Your task to perform on an android device: clear all cookies in the chrome app Image 0: 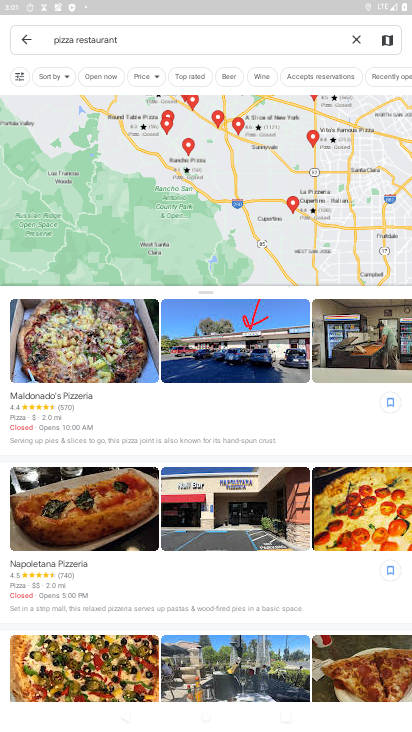
Step 0: press home button
Your task to perform on an android device: clear all cookies in the chrome app Image 1: 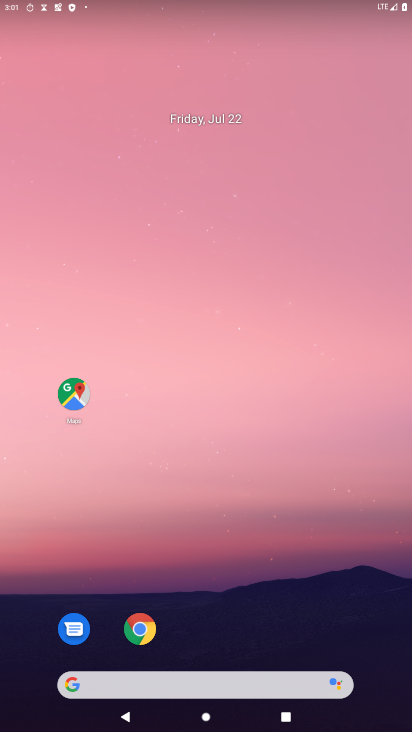
Step 1: drag from (208, 698) to (246, 215)
Your task to perform on an android device: clear all cookies in the chrome app Image 2: 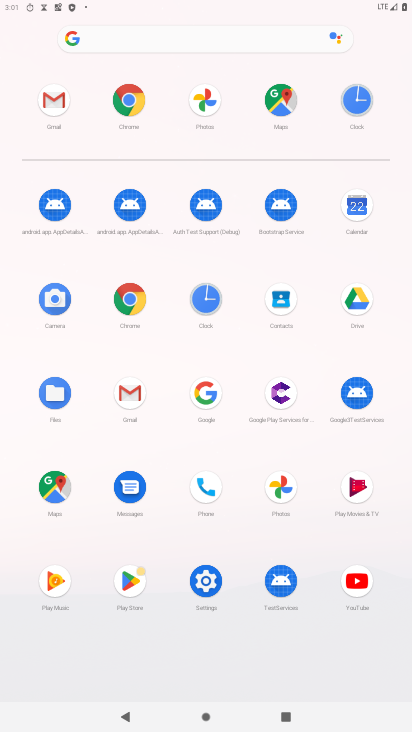
Step 2: click (128, 295)
Your task to perform on an android device: clear all cookies in the chrome app Image 3: 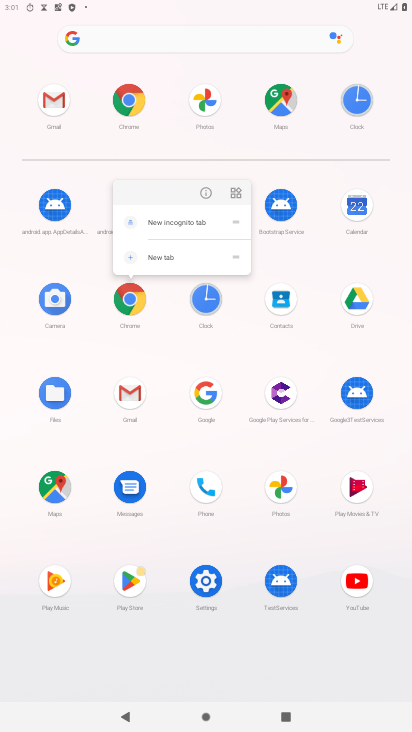
Step 3: click (127, 302)
Your task to perform on an android device: clear all cookies in the chrome app Image 4: 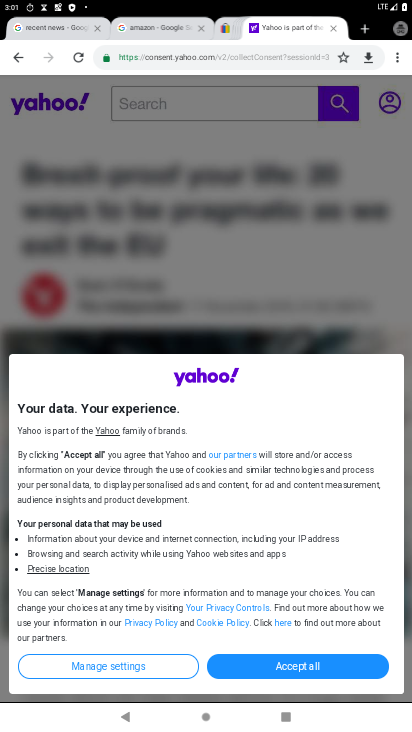
Step 4: drag from (394, 50) to (289, 368)
Your task to perform on an android device: clear all cookies in the chrome app Image 5: 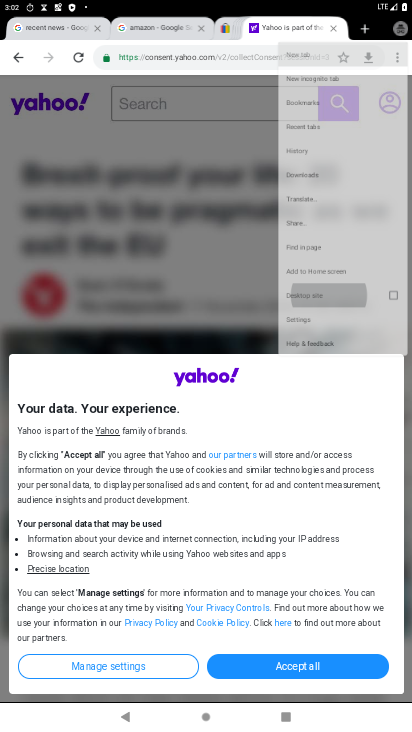
Step 5: click (279, 379)
Your task to perform on an android device: clear all cookies in the chrome app Image 6: 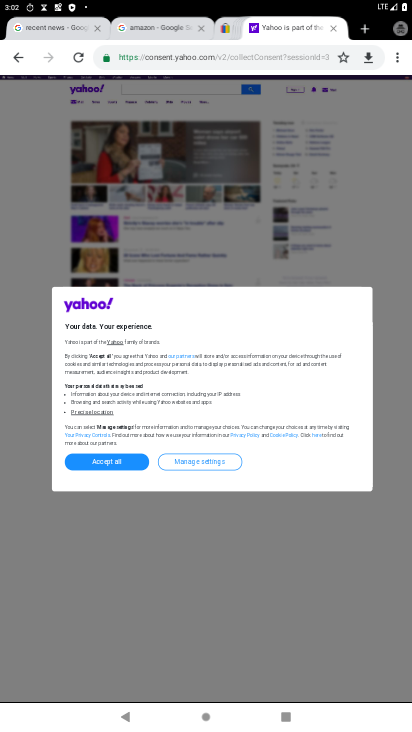
Step 6: press back button
Your task to perform on an android device: clear all cookies in the chrome app Image 7: 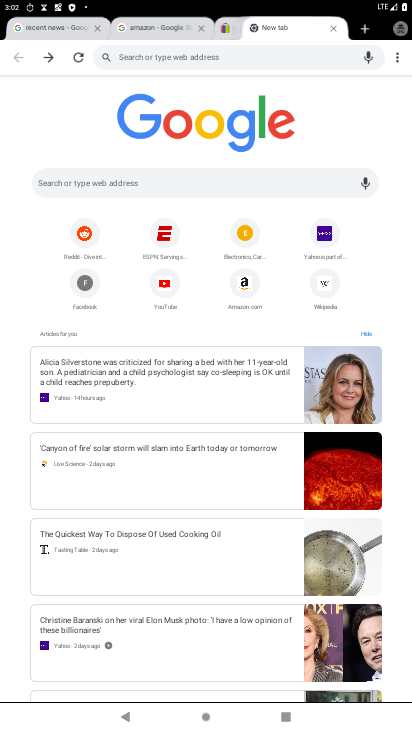
Step 7: click (397, 49)
Your task to perform on an android device: clear all cookies in the chrome app Image 8: 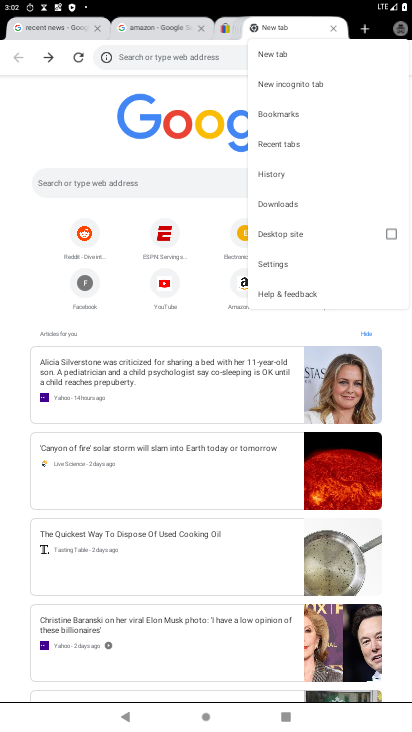
Step 8: click (292, 261)
Your task to perform on an android device: clear all cookies in the chrome app Image 9: 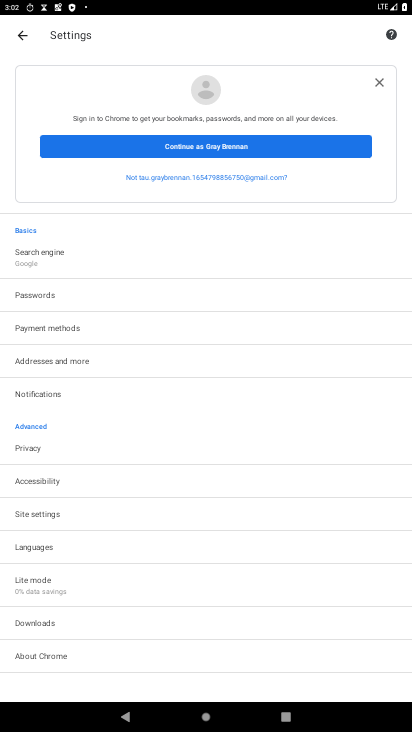
Step 9: click (57, 516)
Your task to perform on an android device: clear all cookies in the chrome app Image 10: 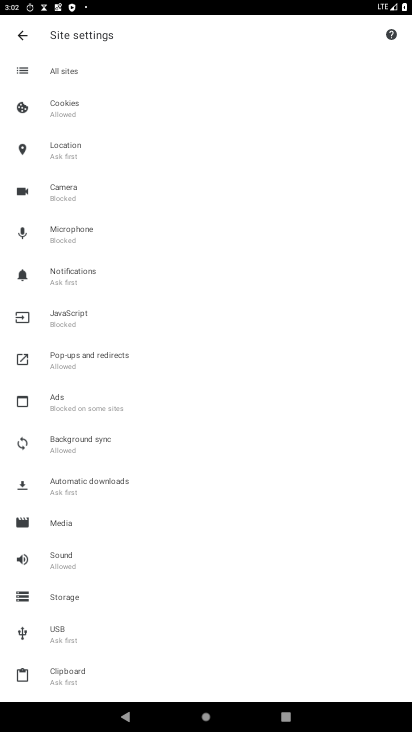
Step 10: click (78, 114)
Your task to perform on an android device: clear all cookies in the chrome app Image 11: 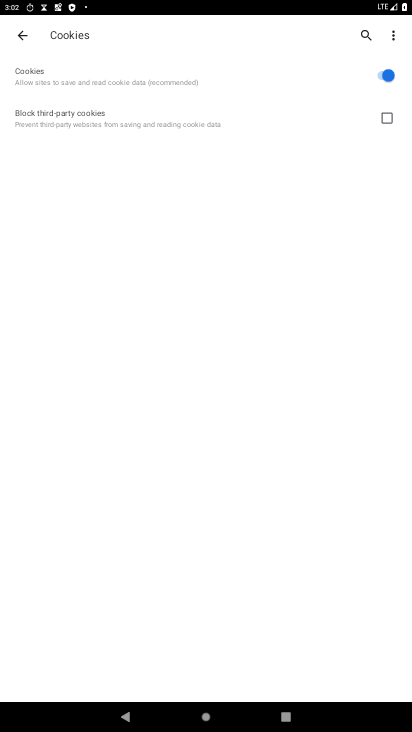
Step 11: press back button
Your task to perform on an android device: clear all cookies in the chrome app Image 12: 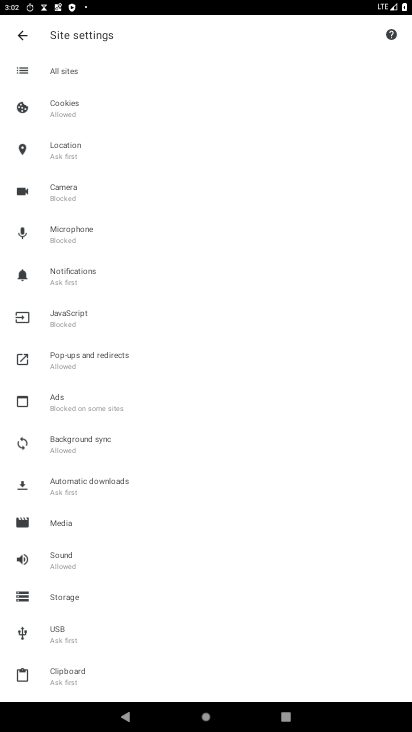
Step 12: press back button
Your task to perform on an android device: clear all cookies in the chrome app Image 13: 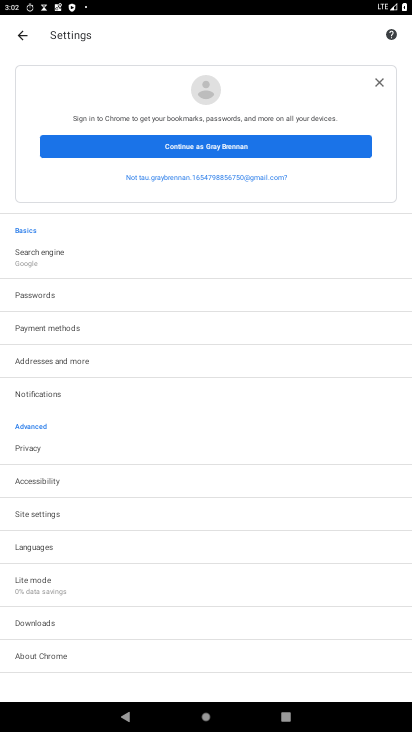
Step 13: click (58, 449)
Your task to perform on an android device: clear all cookies in the chrome app Image 14: 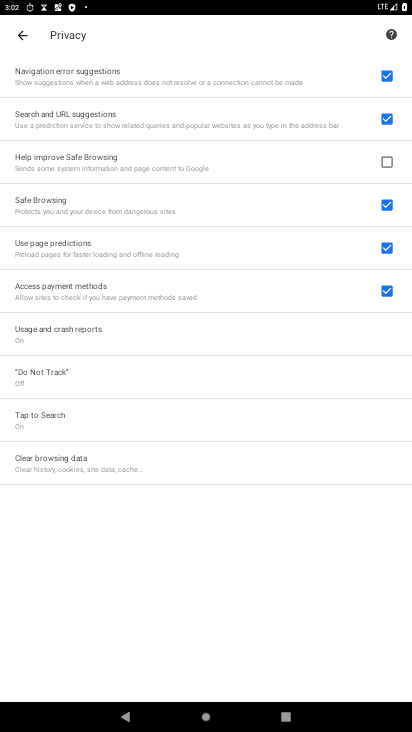
Step 14: click (107, 470)
Your task to perform on an android device: clear all cookies in the chrome app Image 15: 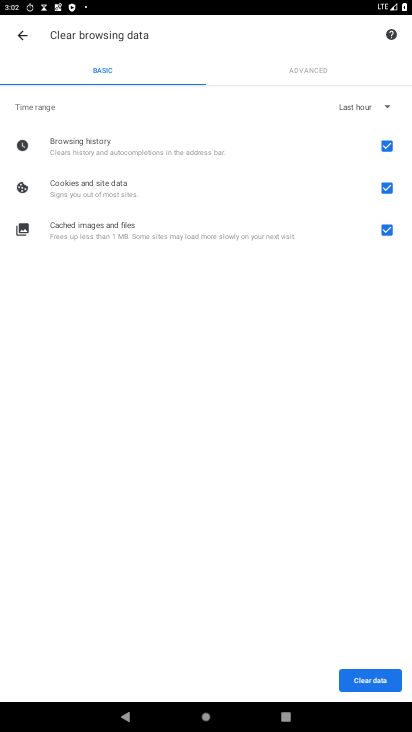
Step 15: click (381, 681)
Your task to perform on an android device: clear all cookies in the chrome app Image 16: 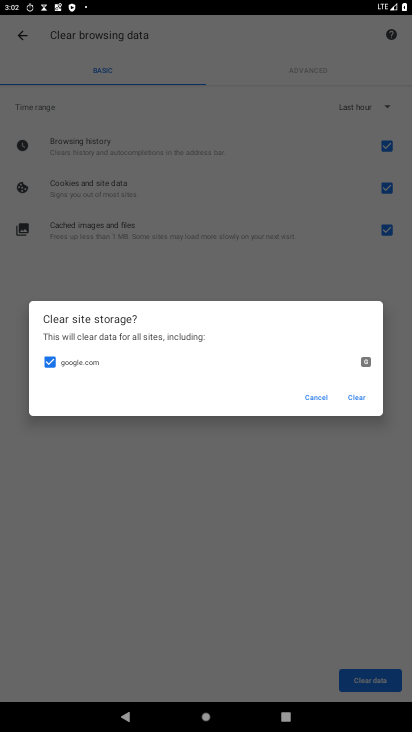
Step 16: click (357, 400)
Your task to perform on an android device: clear all cookies in the chrome app Image 17: 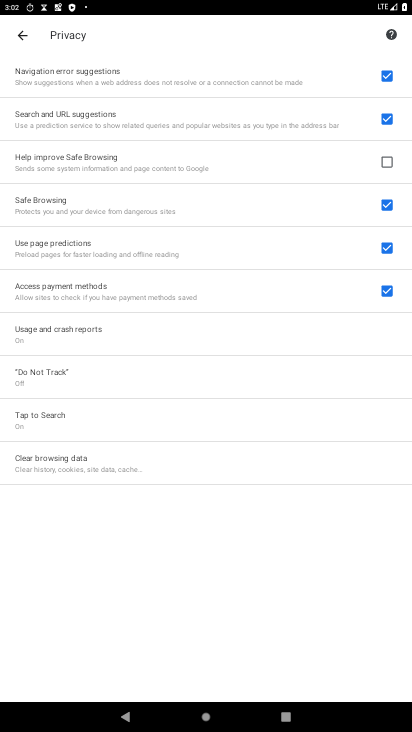
Step 17: task complete